Your task to perform on an android device: open app "Spotify: Music and Podcasts" (install if not already installed) and enter user name: "principled@inbox.com" and password: "arrests" Image 0: 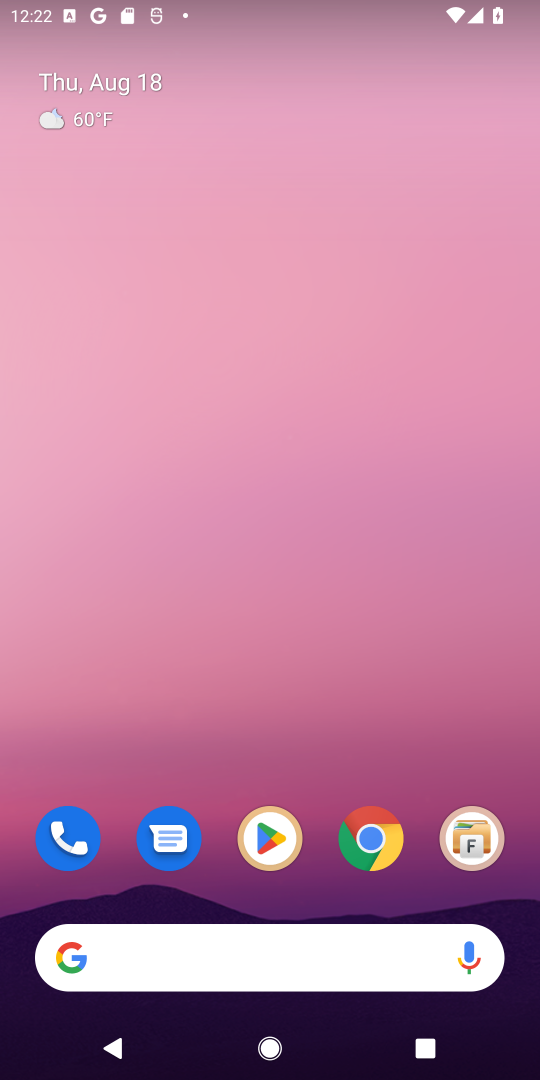
Step 0: click (267, 841)
Your task to perform on an android device: open app "Spotify: Music and Podcasts" (install if not already installed) and enter user name: "principled@inbox.com" and password: "arrests" Image 1: 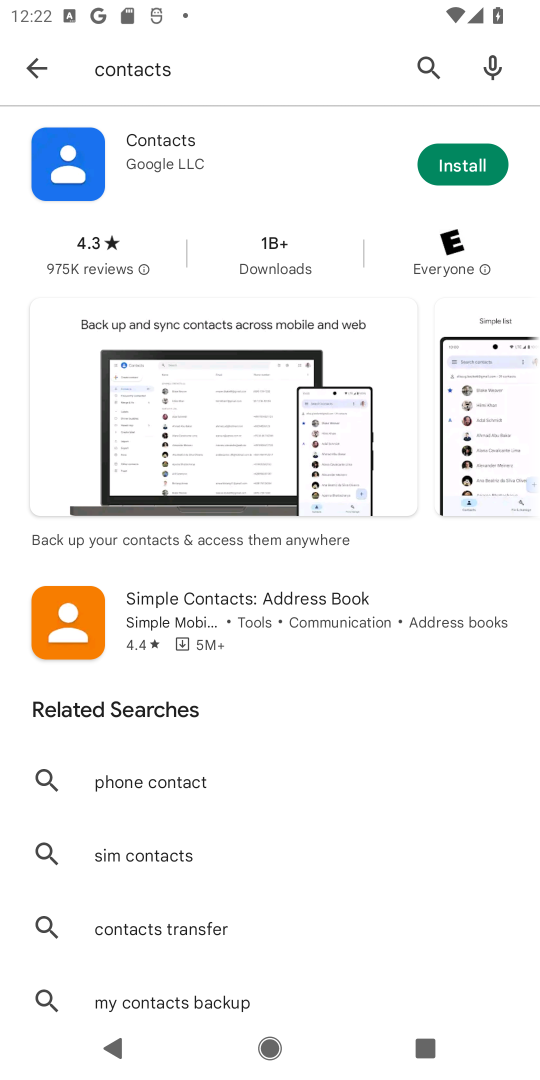
Step 1: click (431, 65)
Your task to perform on an android device: open app "Spotify: Music and Podcasts" (install if not already installed) and enter user name: "principled@inbox.com" and password: "arrests" Image 2: 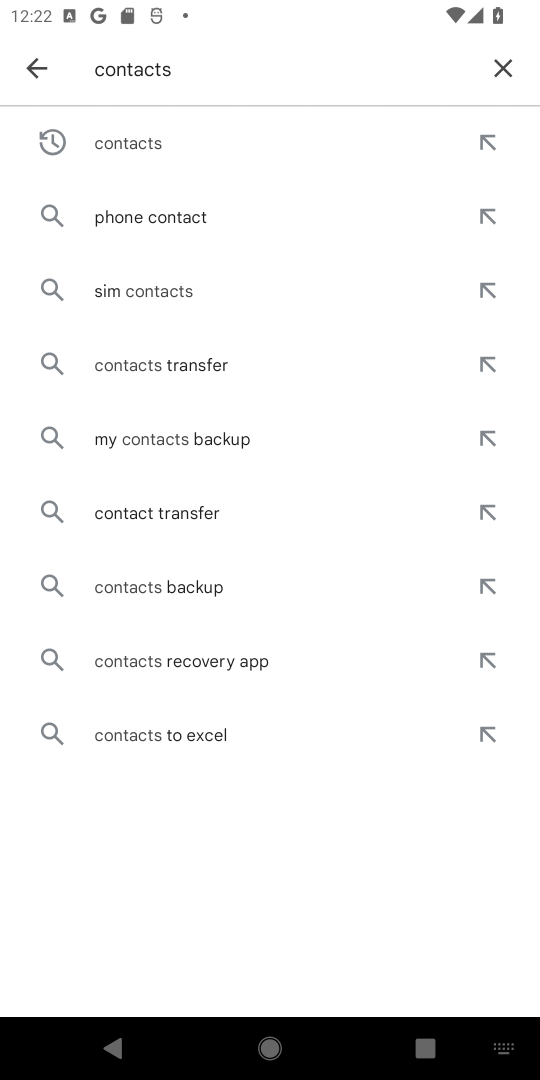
Step 2: click (503, 71)
Your task to perform on an android device: open app "Spotify: Music and Podcasts" (install if not already installed) and enter user name: "principled@inbox.com" and password: "arrests" Image 3: 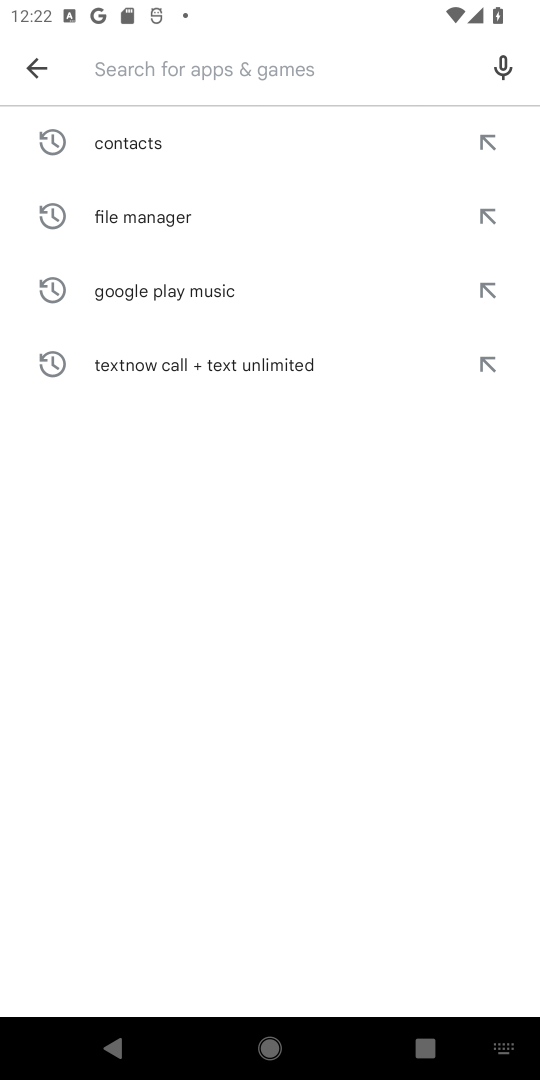
Step 3: type "Spotify: Music and Podcasts"
Your task to perform on an android device: open app "Spotify: Music and Podcasts" (install if not already installed) and enter user name: "principled@inbox.com" and password: "arrests" Image 4: 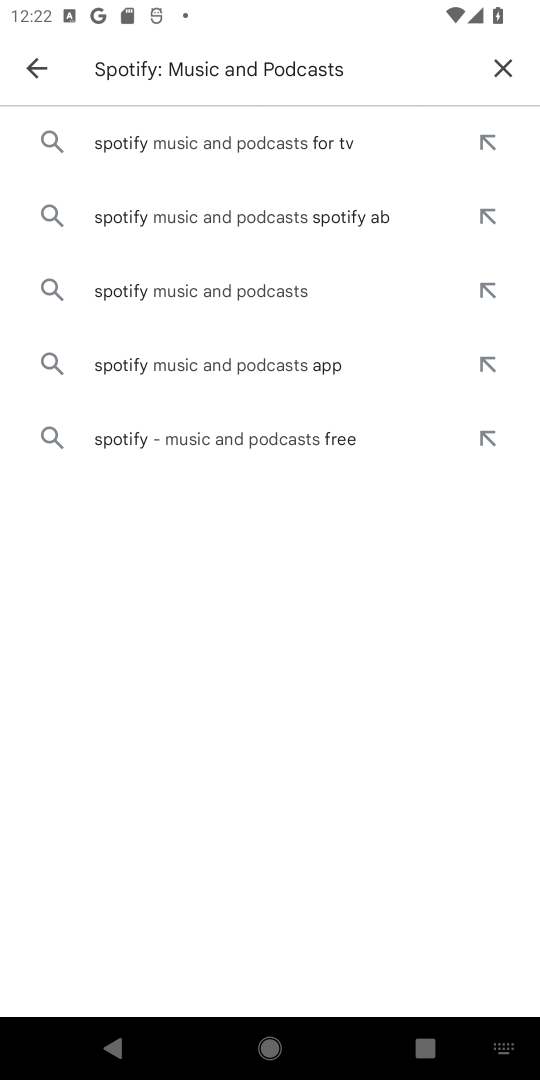
Step 4: click (231, 145)
Your task to perform on an android device: open app "Spotify: Music and Podcasts" (install if not already installed) and enter user name: "principled@inbox.com" and password: "arrests" Image 5: 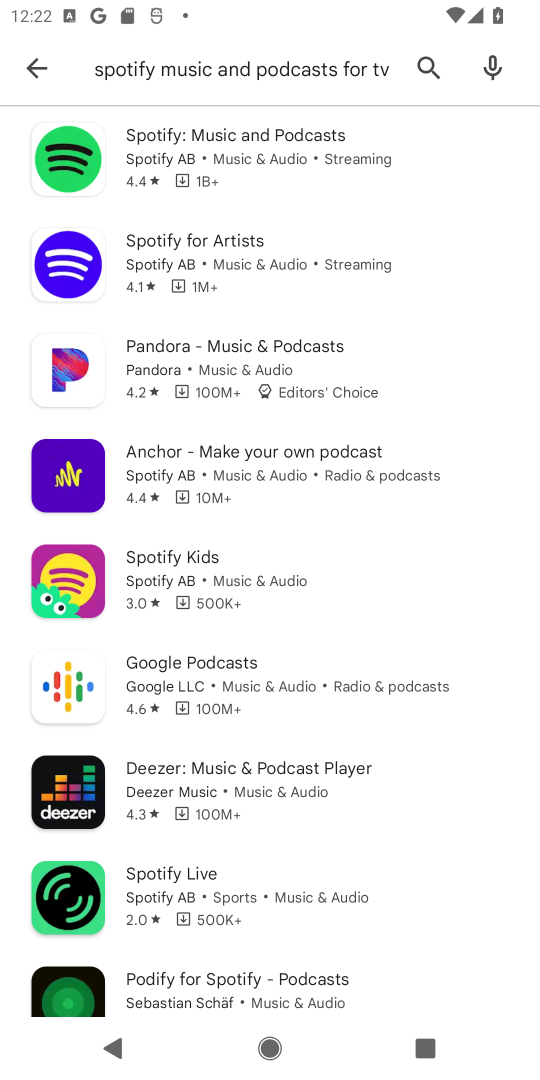
Step 5: click (226, 164)
Your task to perform on an android device: open app "Spotify: Music and Podcasts" (install if not already installed) and enter user name: "principled@inbox.com" and password: "arrests" Image 6: 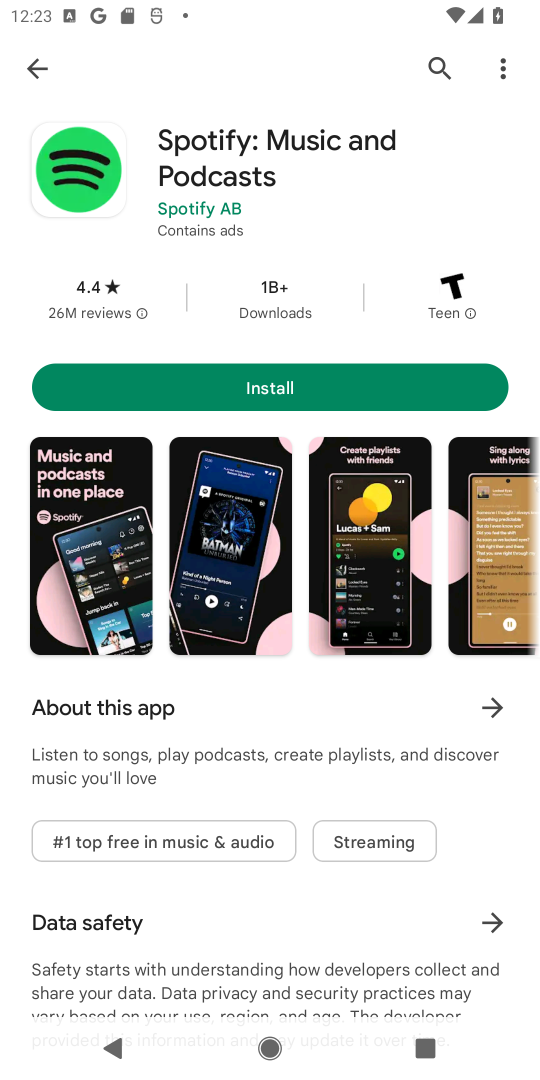
Step 6: click (219, 378)
Your task to perform on an android device: open app "Spotify: Music and Podcasts" (install if not already installed) and enter user name: "principled@inbox.com" and password: "arrests" Image 7: 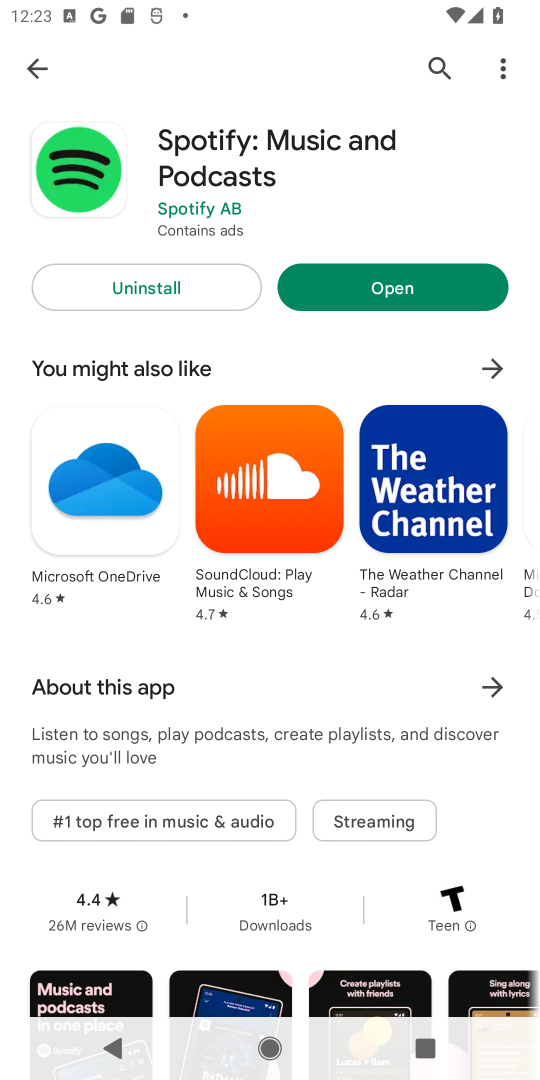
Step 7: click (344, 277)
Your task to perform on an android device: open app "Spotify: Music and Podcasts" (install if not already installed) and enter user name: "principled@inbox.com" and password: "arrests" Image 8: 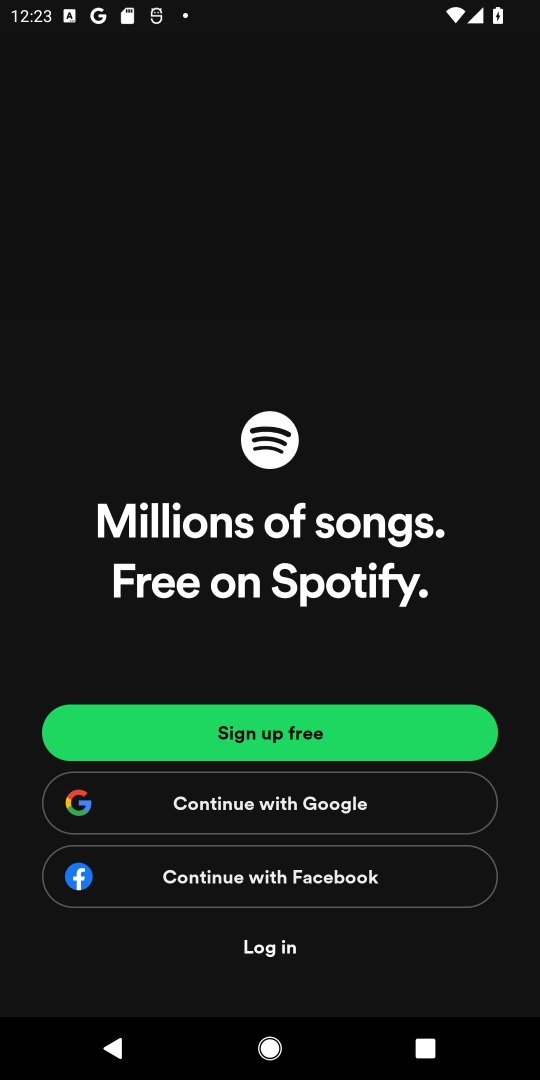
Step 8: task complete